Your task to perform on an android device: Go to settings Image 0: 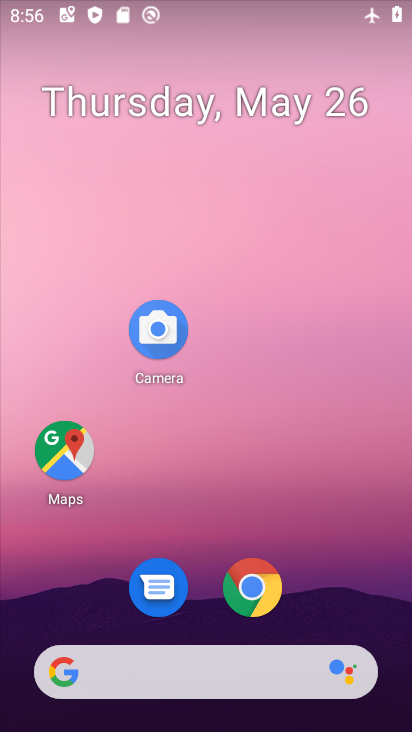
Step 0: press home button
Your task to perform on an android device: Go to settings Image 1: 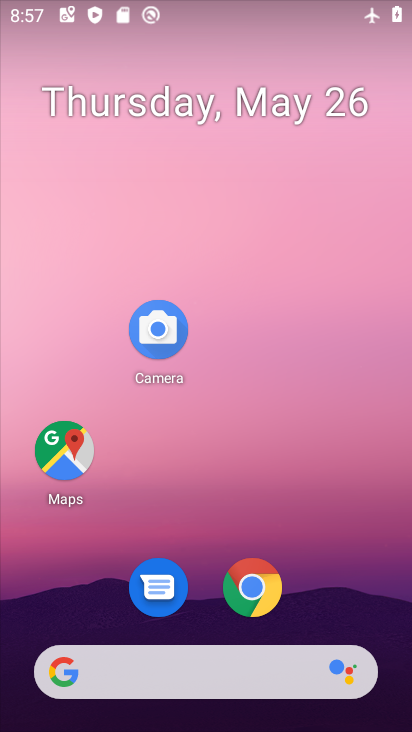
Step 1: drag from (215, 613) to (215, 139)
Your task to perform on an android device: Go to settings Image 2: 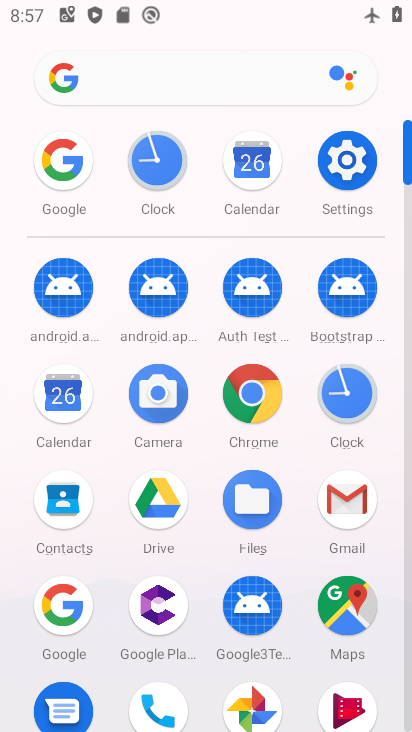
Step 2: click (332, 175)
Your task to perform on an android device: Go to settings Image 3: 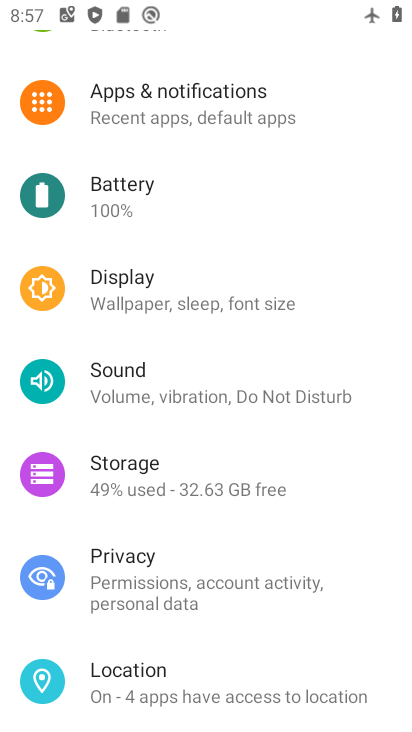
Step 3: task complete